Your task to perform on an android device: empty trash in the gmail app Image 0: 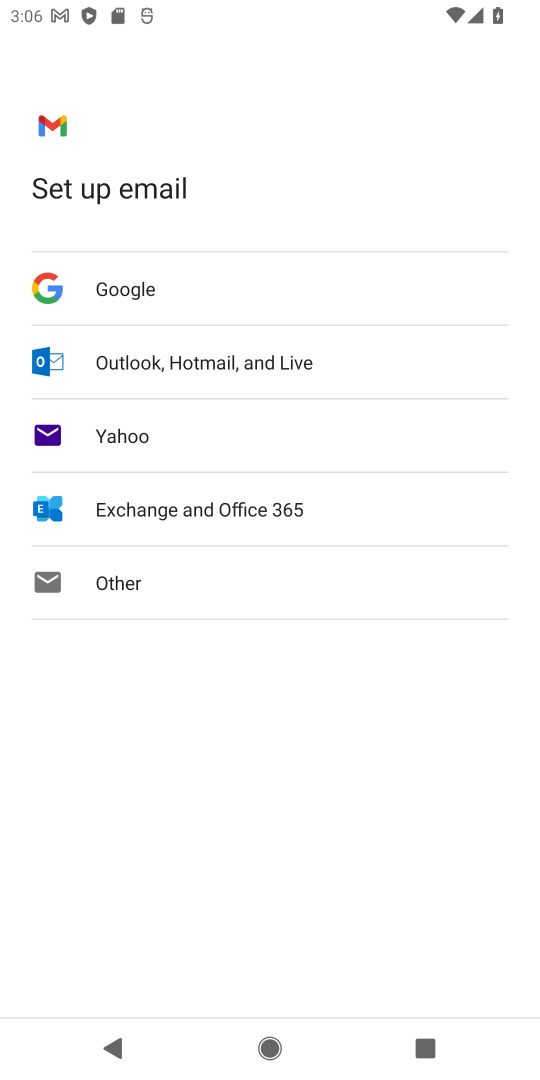
Step 0: press home button
Your task to perform on an android device: empty trash in the gmail app Image 1: 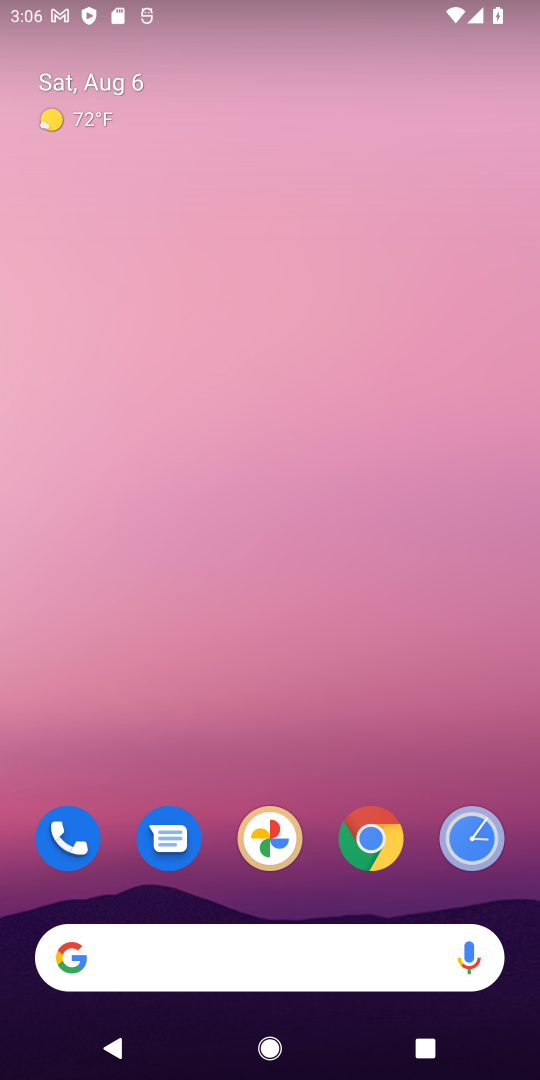
Step 1: drag from (44, 885) to (413, 231)
Your task to perform on an android device: empty trash in the gmail app Image 2: 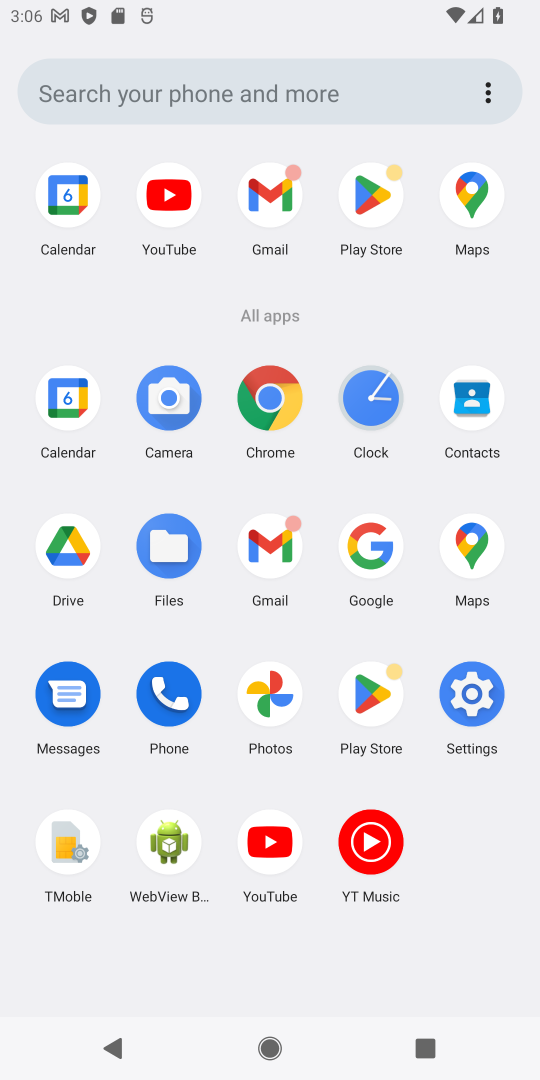
Step 2: click (289, 529)
Your task to perform on an android device: empty trash in the gmail app Image 3: 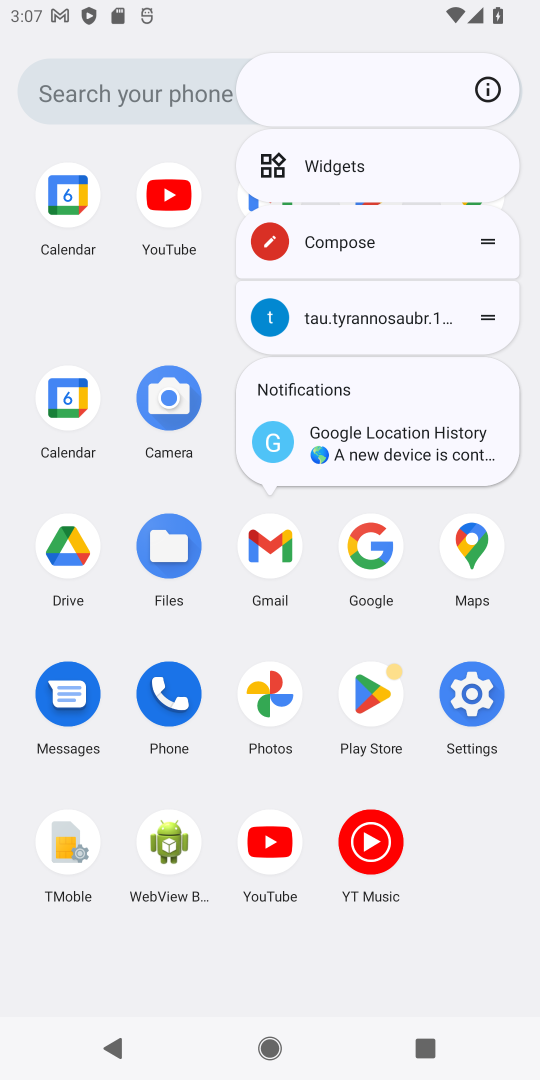
Step 3: click (277, 554)
Your task to perform on an android device: empty trash in the gmail app Image 4: 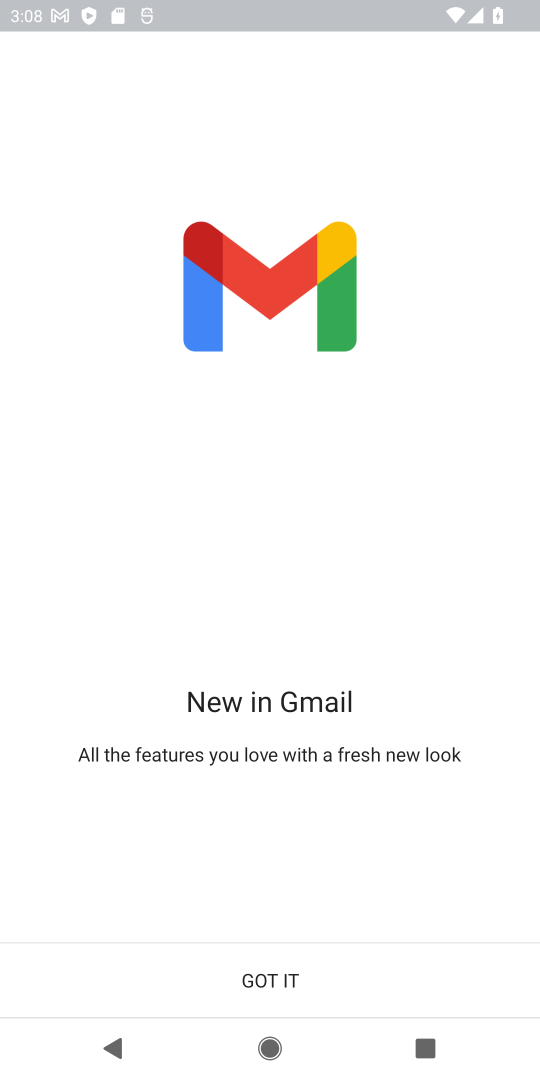
Step 4: click (246, 988)
Your task to perform on an android device: empty trash in the gmail app Image 5: 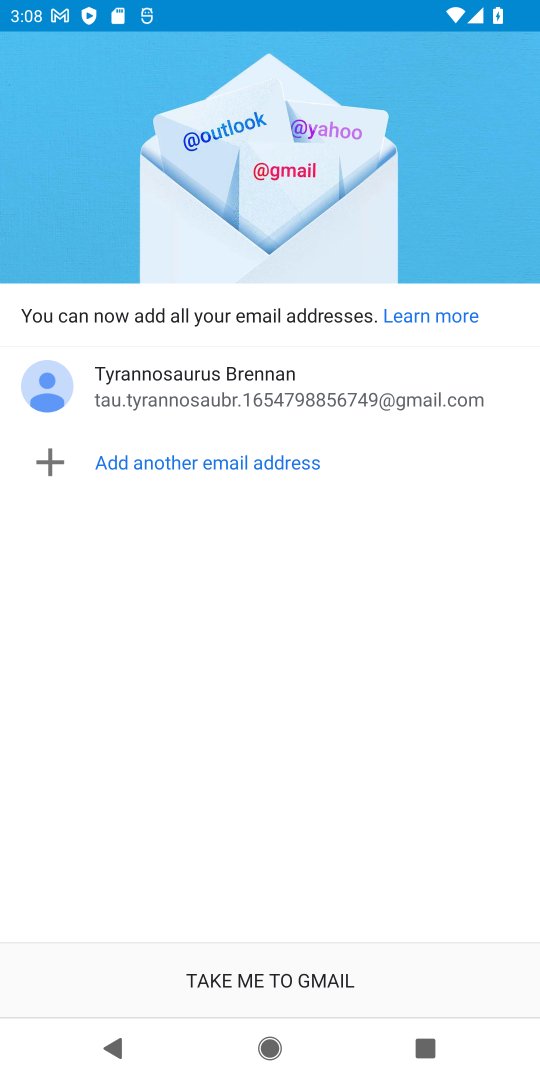
Step 5: click (303, 963)
Your task to perform on an android device: empty trash in the gmail app Image 6: 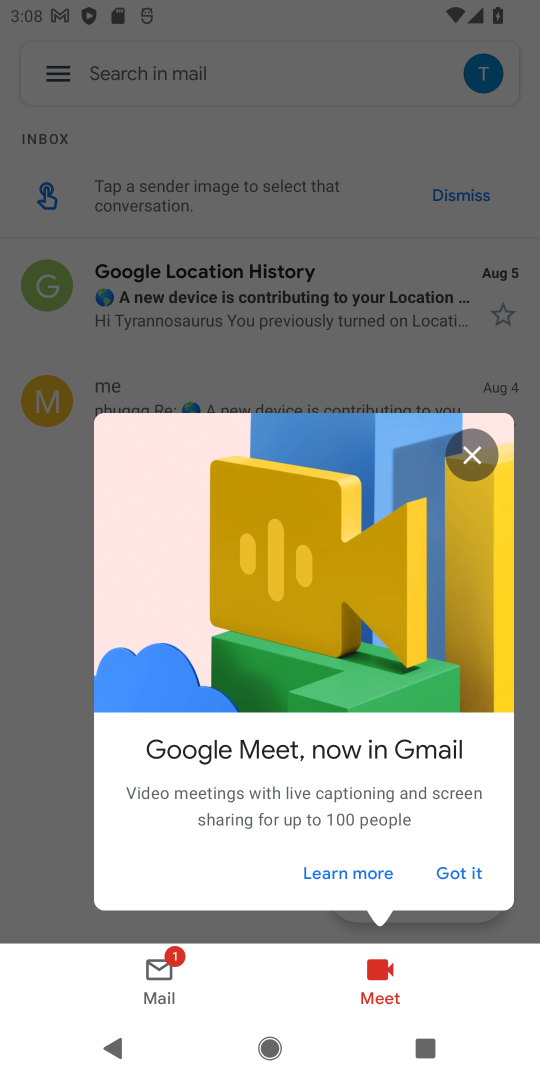
Step 6: click (183, 973)
Your task to perform on an android device: empty trash in the gmail app Image 7: 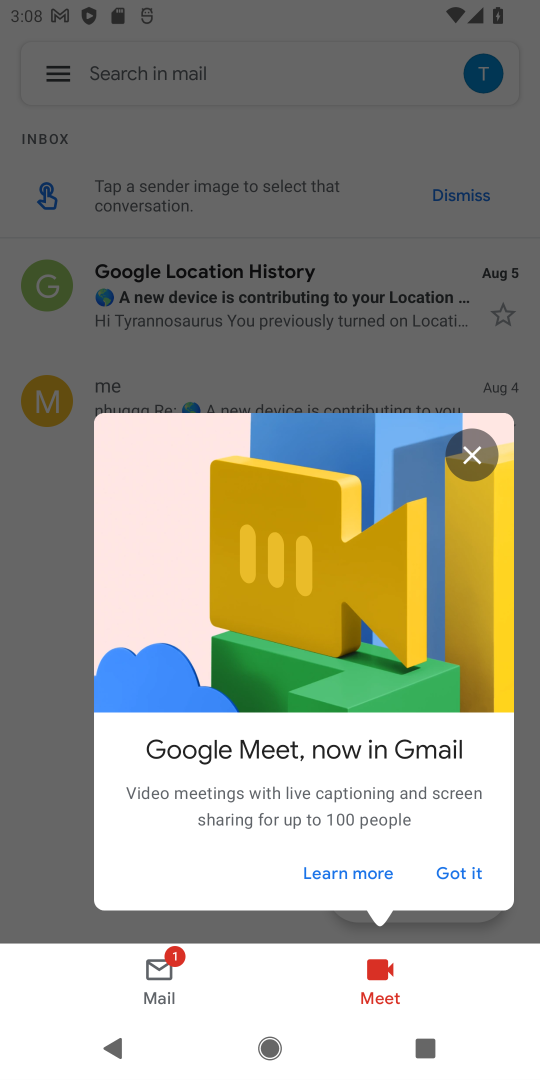
Step 7: click (436, 870)
Your task to perform on an android device: empty trash in the gmail app Image 8: 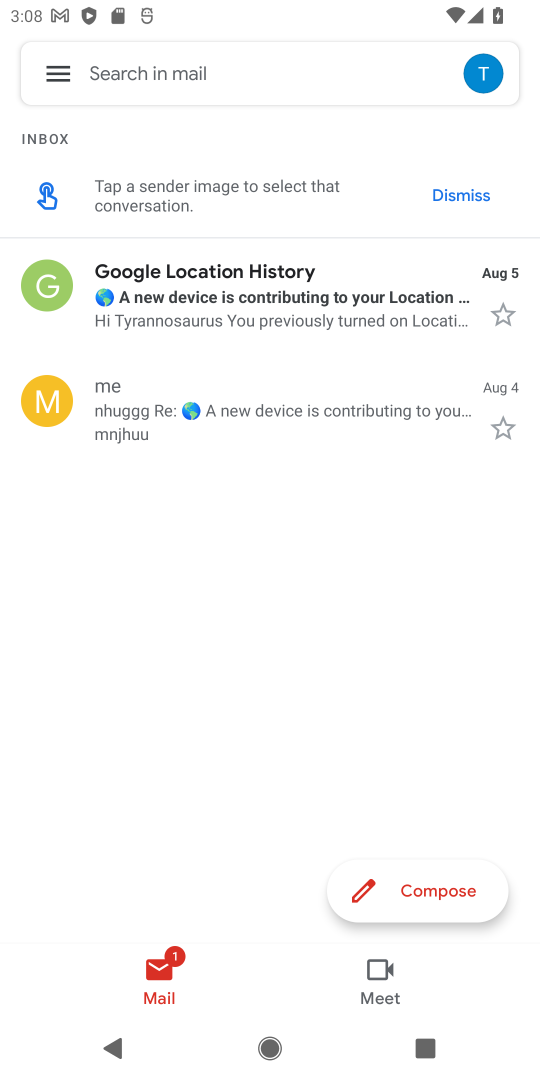
Step 8: click (54, 75)
Your task to perform on an android device: empty trash in the gmail app Image 9: 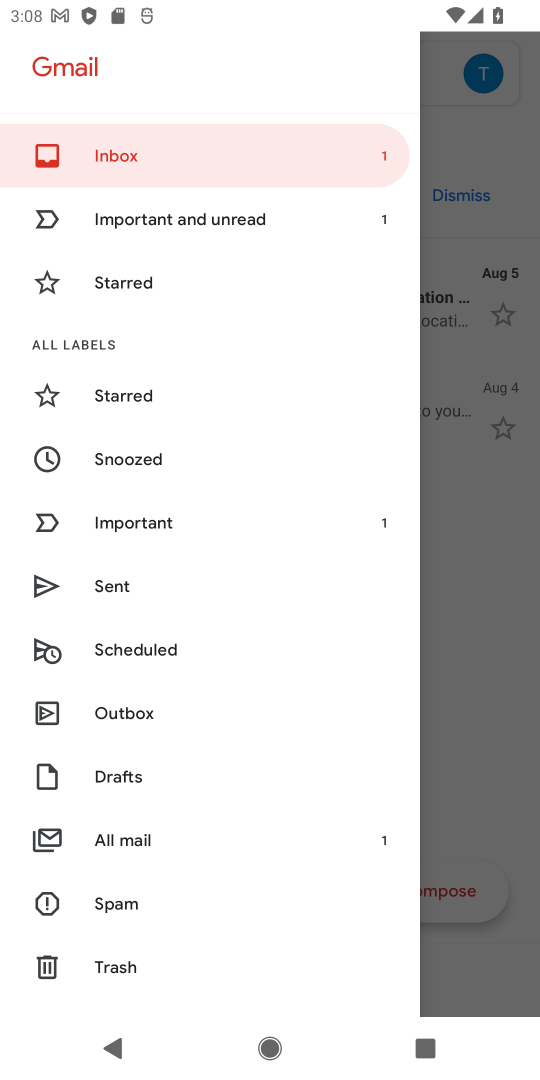
Step 9: click (86, 964)
Your task to perform on an android device: empty trash in the gmail app Image 10: 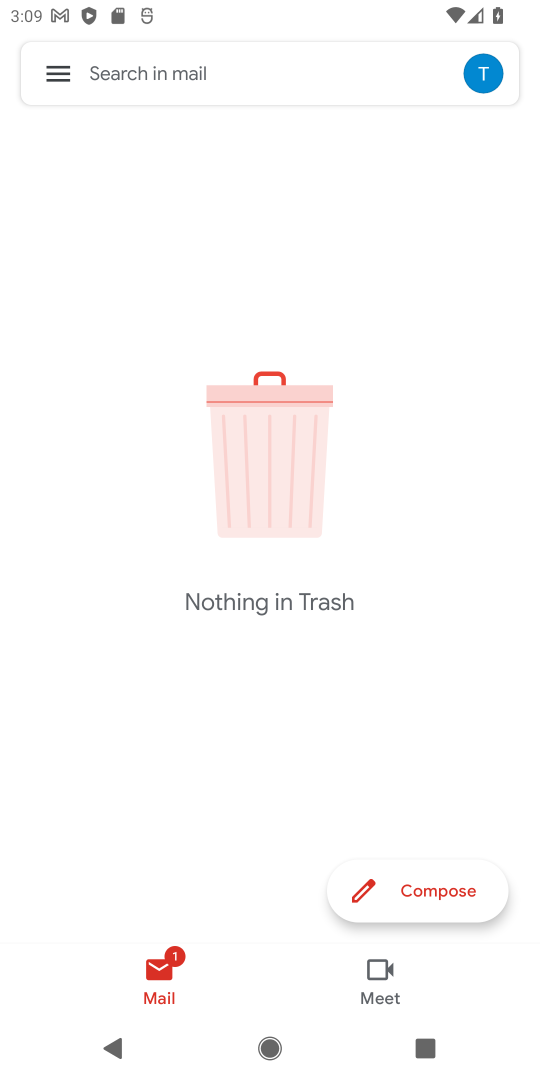
Step 10: task complete